Your task to perform on an android device: delete the emails in spam in the gmail app Image 0: 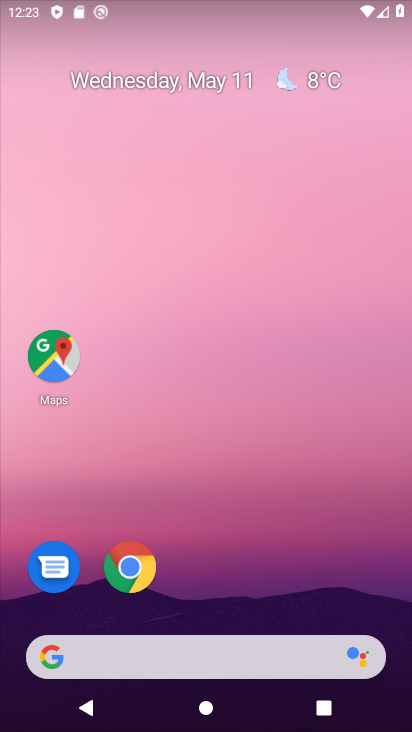
Step 0: drag from (228, 588) to (325, 95)
Your task to perform on an android device: delete the emails in spam in the gmail app Image 1: 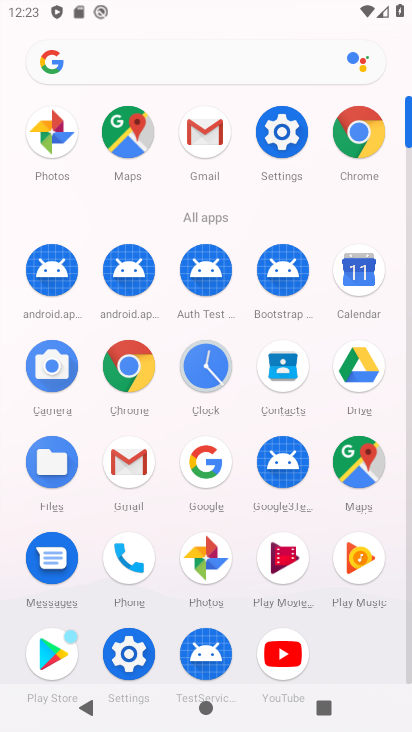
Step 1: click (123, 465)
Your task to perform on an android device: delete the emails in spam in the gmail app Image 2: 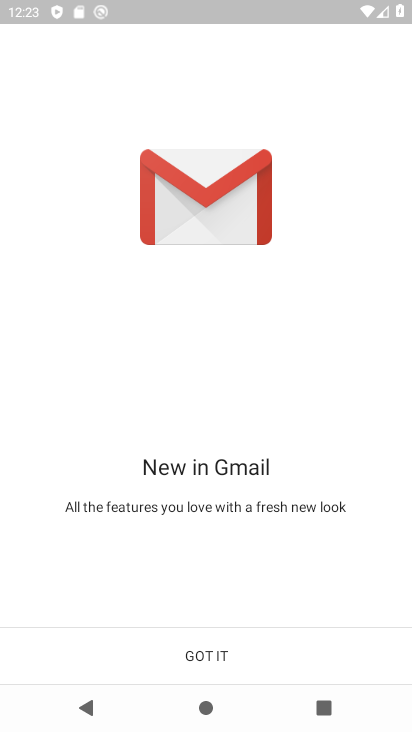
Step 2: click (189, 650)
Your task to perform on an android device: delete the emails in spam in the gmail app Image 3: 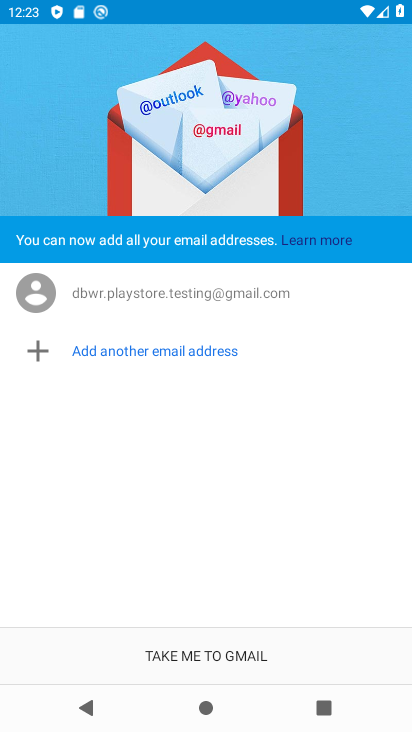
Step 3: click (187, 670)
Your task to perform on an android device: delete the emails in spam in the gmail app Image 4: 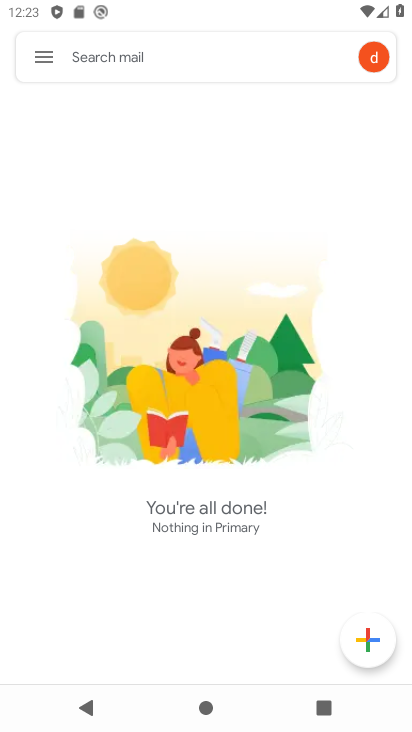
Step 4: click (34, 58)
Your task to perform on an android device: delete the emails in spam in the gmail app Image 5: 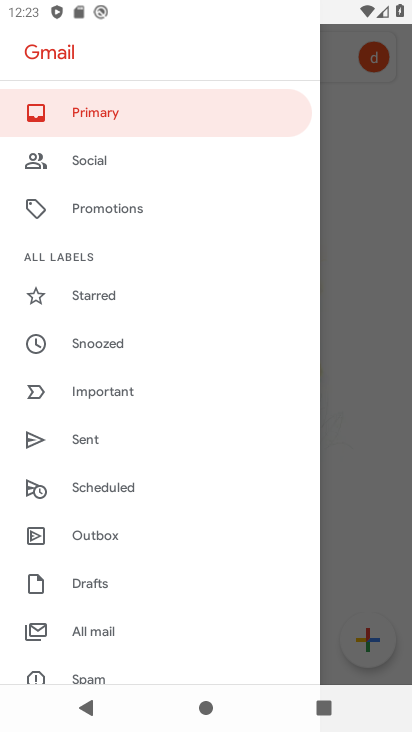
Step 5: drag from (113, 656) to (155, 514)
Your task to perform on an android device: delete the emails in spam in the gmail app Image 6: 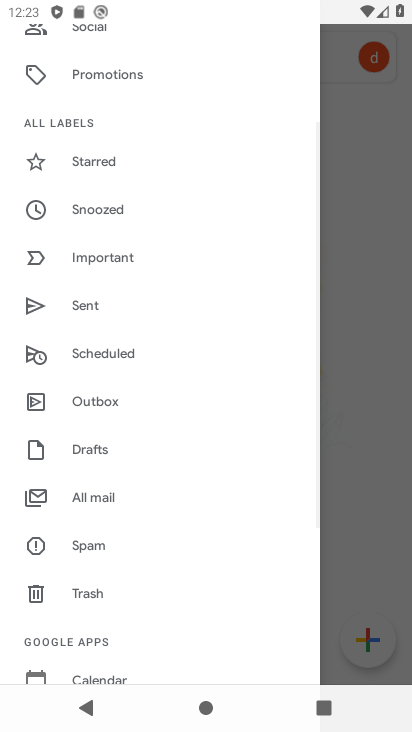
Step 6: click (164, 546)
Your task to perform on an android device: delete the emails in spam in the gmail app Image 7: 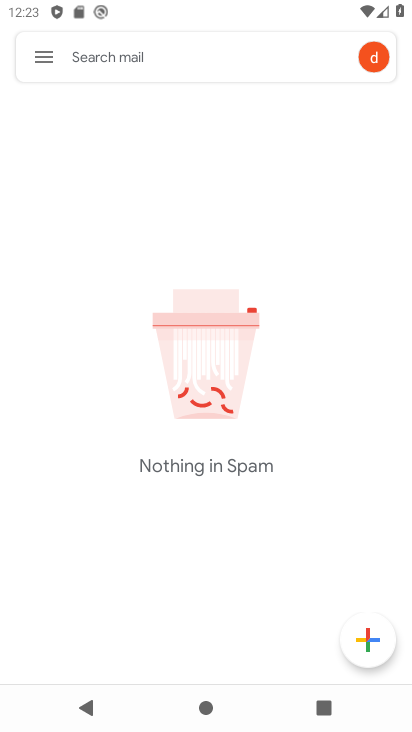
Step 7: task complete